Your task to perform on an android device: Open display settings Image 0: 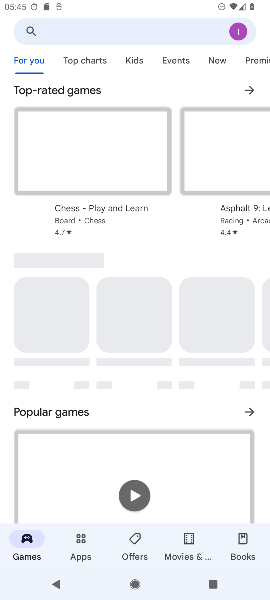
Step 0: press home button
Your task to perform on an android device: Open display settings Image 1: 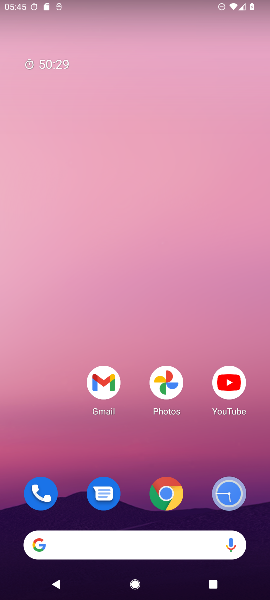
Step 1: drag from (63, 458) to (75, 140)
Your task to perform on an android device: Open display settings Image 2: 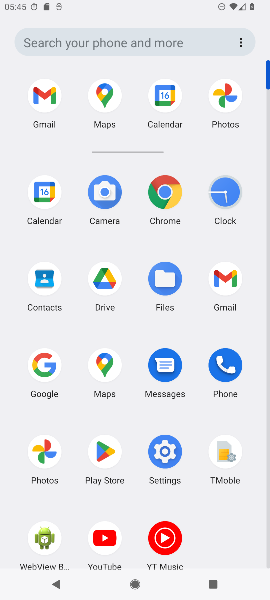
Step 2: click (166, 456)
Your task to perform on an android device: Open display settings Image 3: 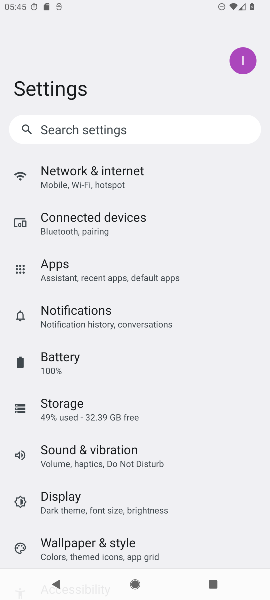
Step 3: drag from (206, 442) to (227, 331)
Your task to perform on an android device: Open display settings Image 4: 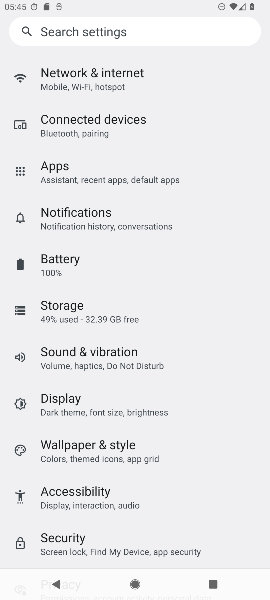
Step 4: drag from (208, 444) to (225, 347)
Your task to perform on an android device: Open display settings Image 5: 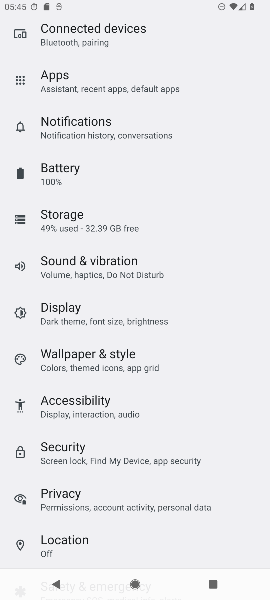
Step 5: drag from (227, 484) to (237, 362)
Your task to perform on an android device: Open display settings Image 6: 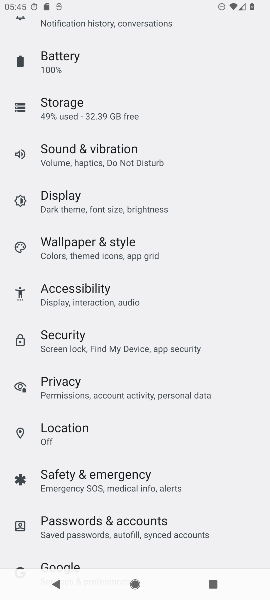
Step 6: drag from (226, 476) to (240, 346)
Your task to perform on an android device: Open display settings Image 7: 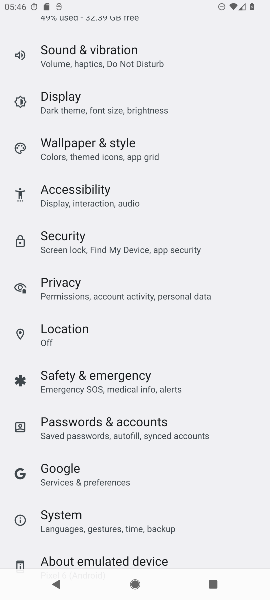
Step 7: drag from (218, 505) to (235, 362)
Your task to perform on an android device: Open display settings Image 8: 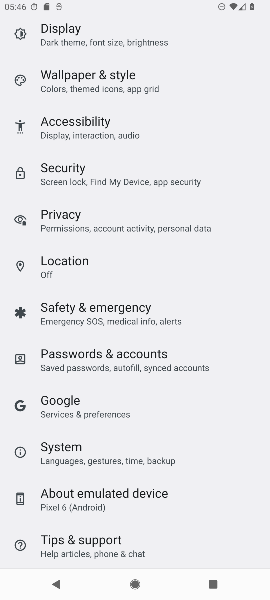
Step 8: drag from (243, 263) to (245, 347)
Your task to perform on an android device: Open display settings Image 9: 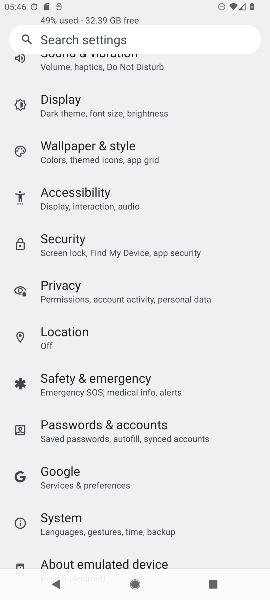
Step 9: drag from (246, 251) to (242, 320)
Your task to perform on an android device: Open display settings Image 10: 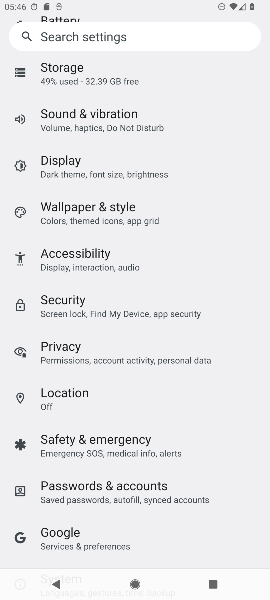
Step 10: drag from (243, 242) to (233, 336)
Your task to perform on an android device: Open display settings Image 11: 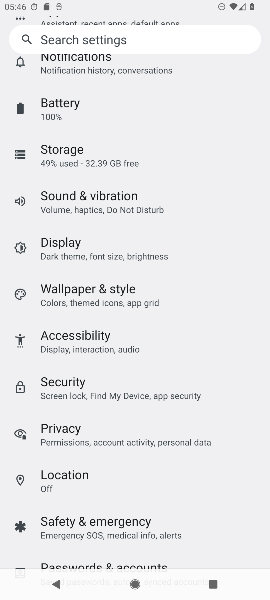
Step 11: drag from (220, 204) to (228, 341)
Your task to perform on an android device: Open display settings Image 12: 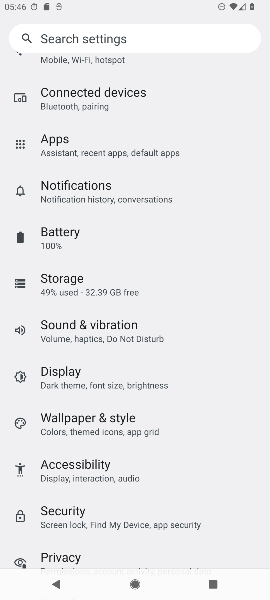
Step 12: drag from (234, 196) to (244, 366)
Your task to perform on an android device: Open display settings Image 13: 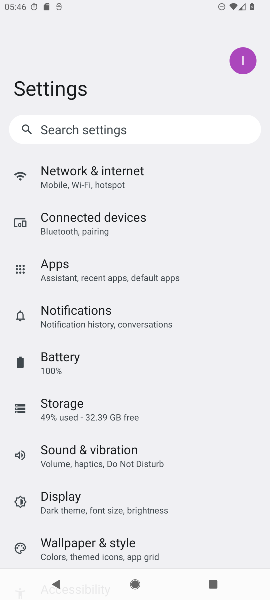
Step 13: click (183, 501)
Your task to perform on an android device: Open display settings Image 14: 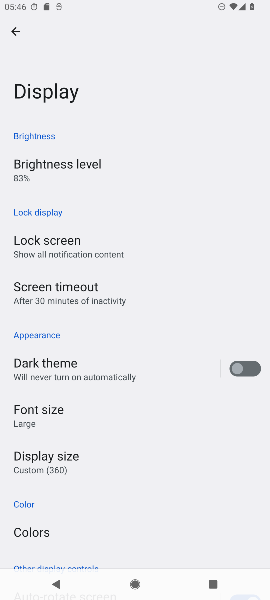
Step 14: task complete